Your task to perform on an android device: Search for vegetarian restaurants on Maps Image 0: 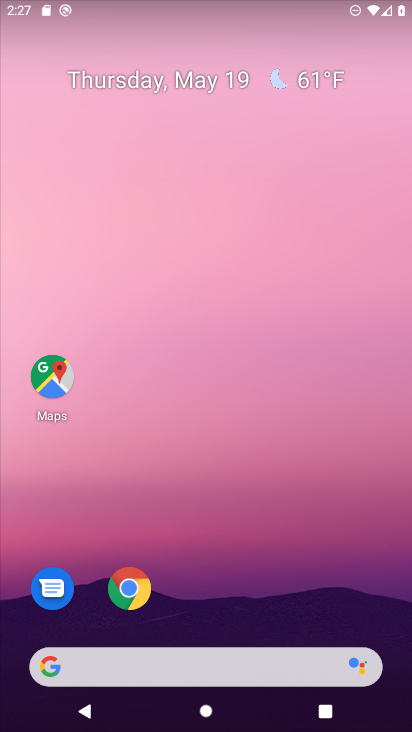
Step 0: click (43, 385)
Your task to perform on an android device: Search for vegetarian restaurants on Maps Image 1: 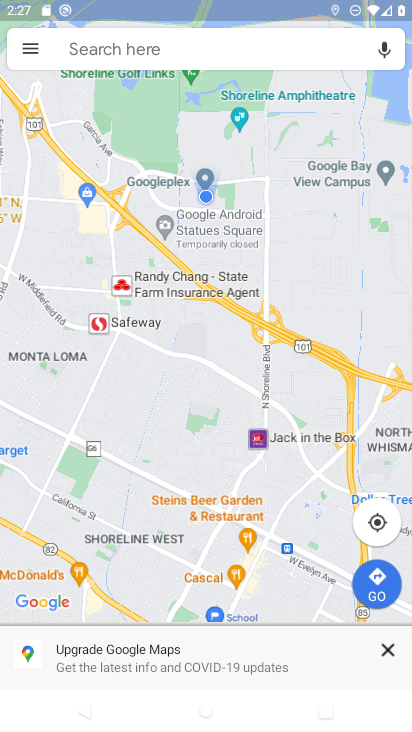
Step 1: click (117, 53)
Your task to perform on an android device: Search for vegetarian restaurants on Maps Image 2: 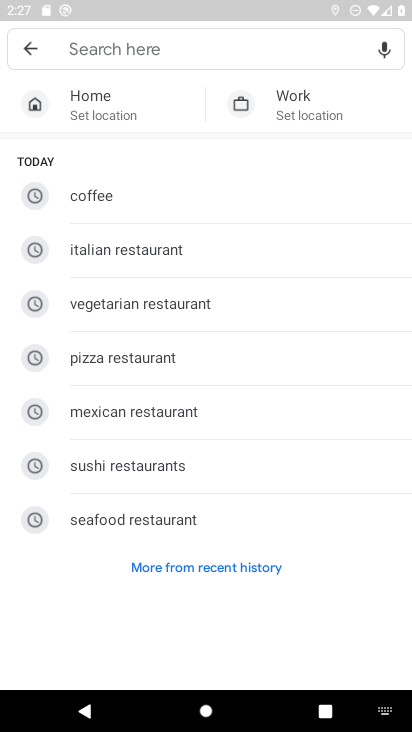
Step 2: type "vegetarian restaurant "
Your task to perform on an android device: Search for vegetarian restaurants on Maps Image 3: 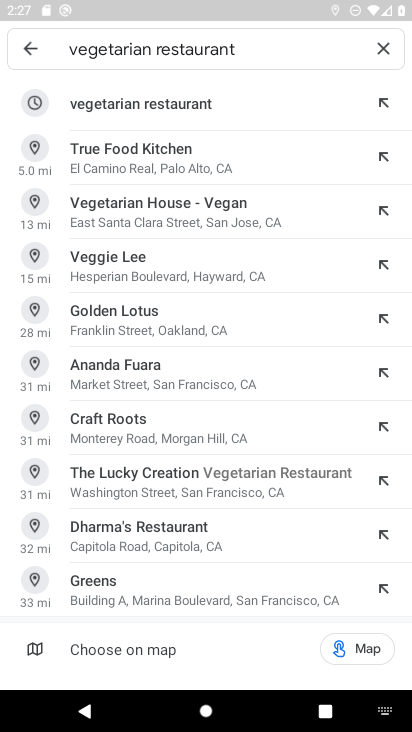
Step 3: click (149, 104)
Your task to perform on an android device: Search for vegetarian restaurants on Maps Image 4: 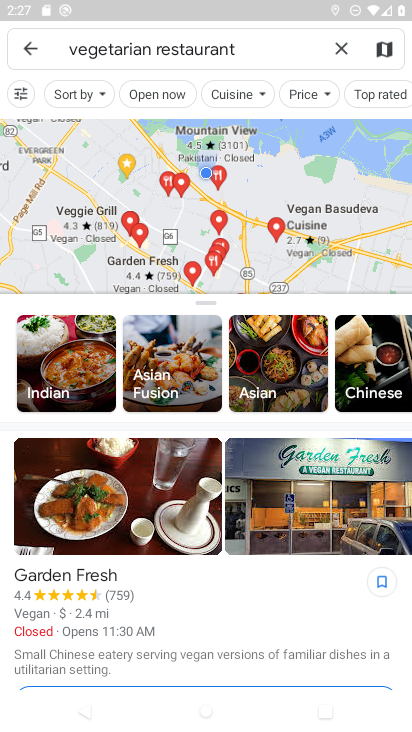
Step 4: task complete